Your task to perform on an android device: Open Google Chrome and click the shortcut for Amazon.com Image 0: 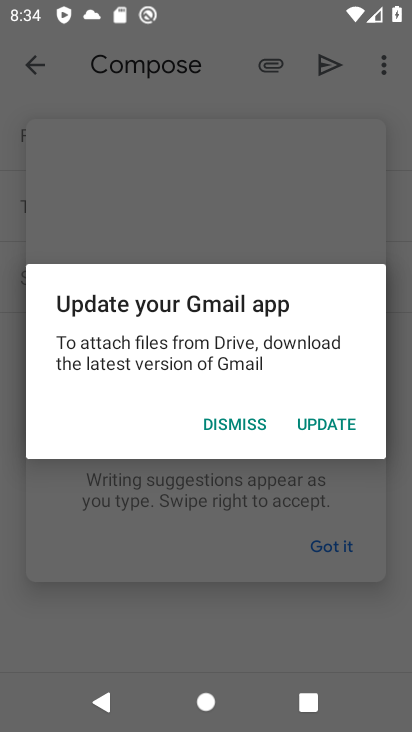
Step 0: press home button
Your task to perform on an android device: Open Google Chrome and click the shortcut for Amazon.com Image 1: 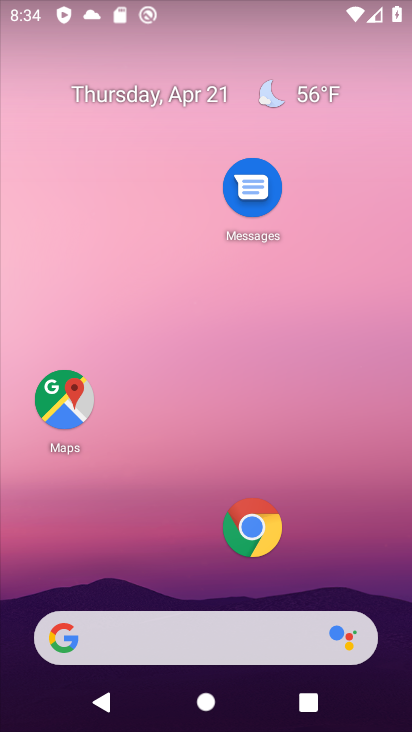
Step 1: drag from (196, 626) to (341, 153)
Your task to perform on an android device: Open Google Chrome and click the shortcut for Amazon.com Image 2: 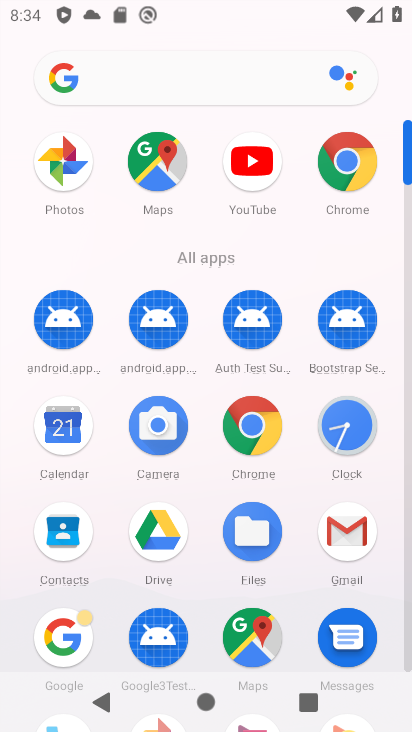
Step 2: click (350, 178)
Your task to perform on an android device: Open Google Chrome and click the shortcut for Amazon.com Image 3: 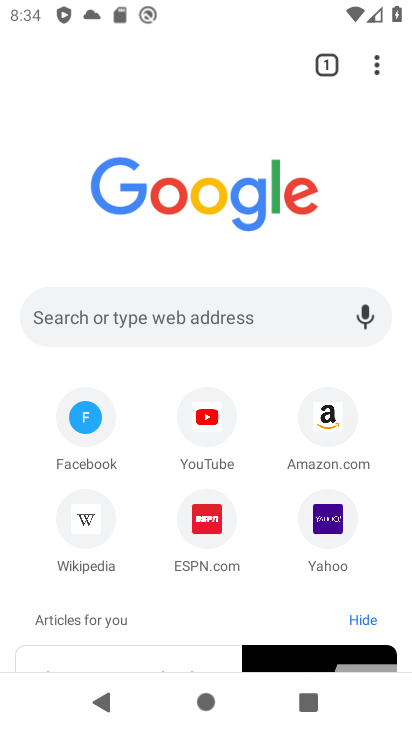
Step 3: click (326, 414)
Your task to perform on an android device: Open Google Chrome and click the shortcut for Amazon.com Image 4: 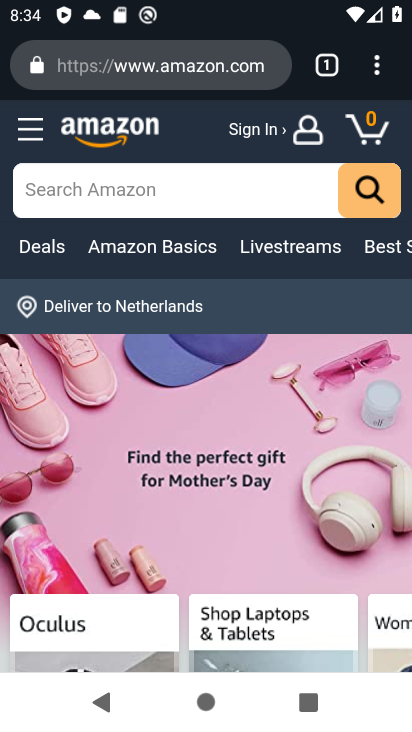
Step 4: task complete